Your task to perform on an android device: turn off notifications settings in the gmail app Image 0: 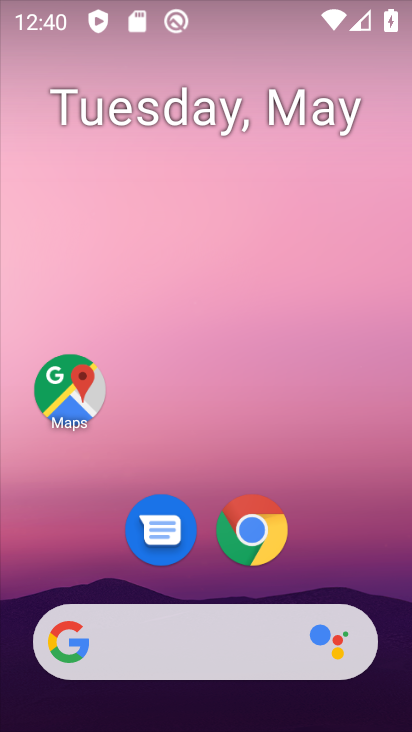
Step 0: drag from (213, 582) to (228, 240)
Your task to perform on an android device: turn off notifications settings in the gmail app Image 1: 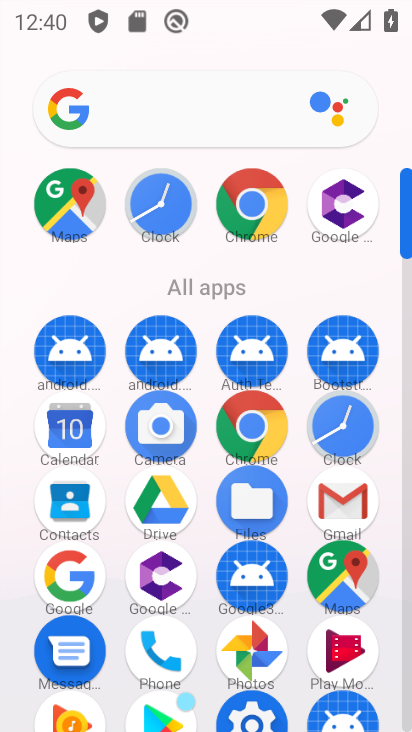
Step 1: click (350, 508)
Your task to perform on an android device: turn off notifications settings in the gmail app Image 2: 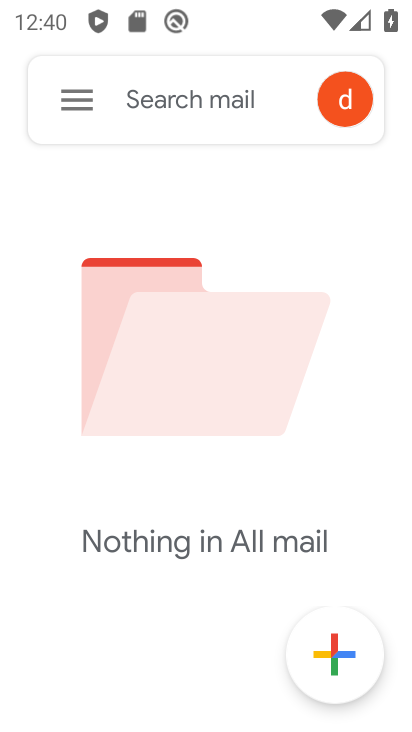
Step 2: click (65, 100)
Your task to perform on an android device: turn off notifications settings in the gmail app Image 3: 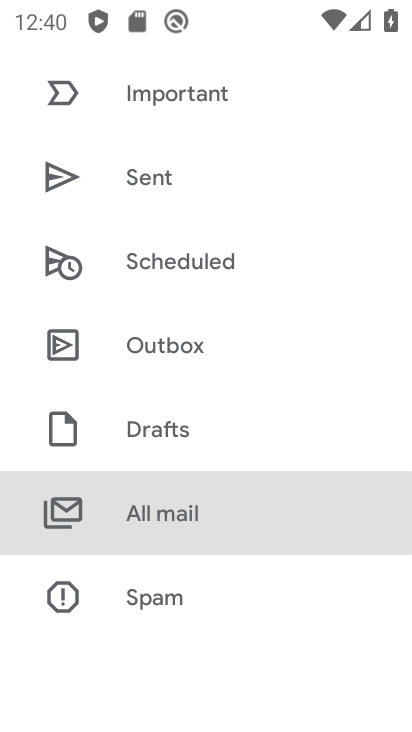
Step 3: drag from (188, 620) to (208, 325)
Your task to perform on an android device: turn off notifications settings in the gmail app Image 4: 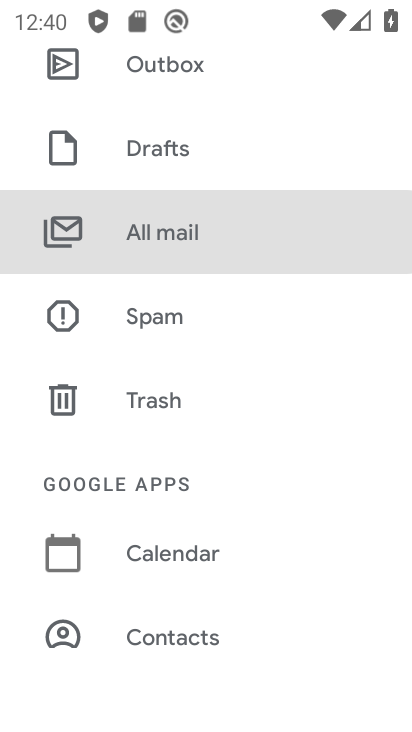
Step 4: drag from (247, 607) to (288, 300)
Your task to perform on an android device: turn off notifications settings in the gmail app Image 5: 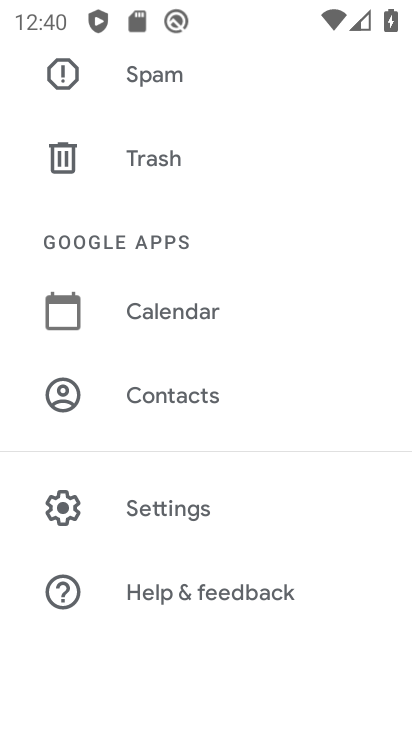
Step 5: click (146, 514)
Your task to perform on an android device: turn off notifications settings in the gmail app Image 6: 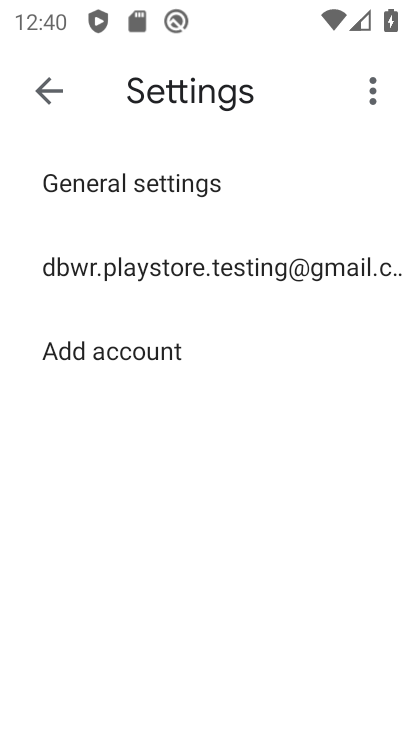
Step 6: click (168, 261)
Your task to perform on an android device: turn off notifications settings in the gmail app Image 7: 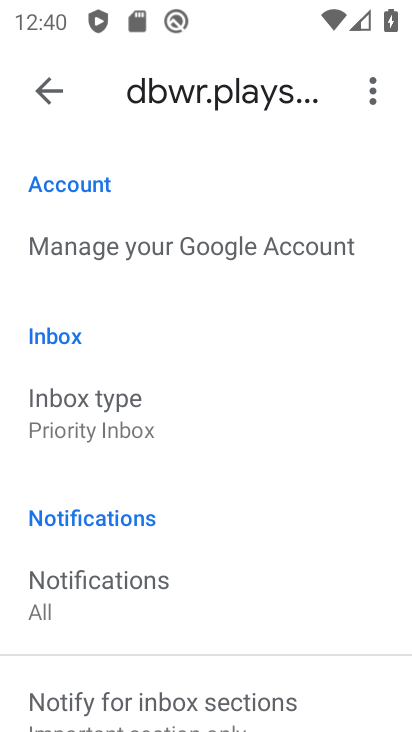
Step 7: click (107, 589)
Your task to perform on an android device: turn off notifications settings in the gmail app Image 8: 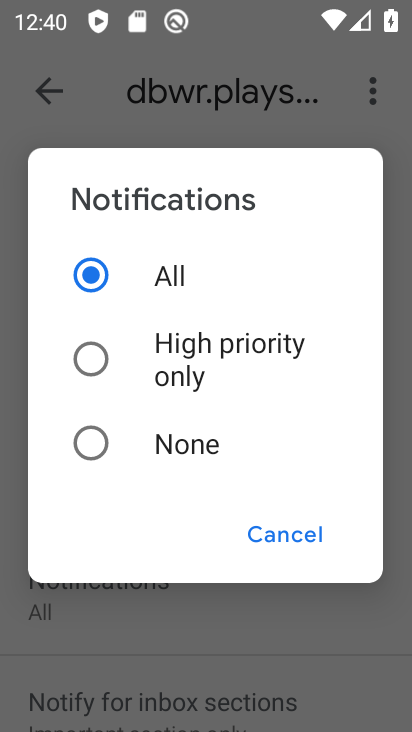
Step 8: click (104, 446)
Your task to perform on an android device: turn off notifications settings in the gmail app Image 9: 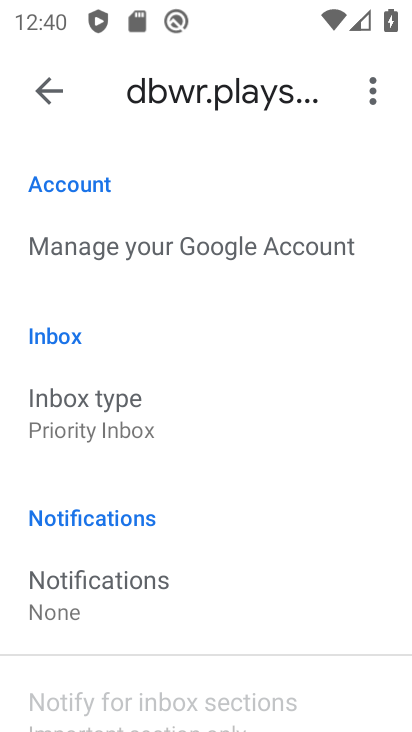
Step 9: task complete